Your task to perform on an android device: toggle notifications settings in the gmail app Image 0: 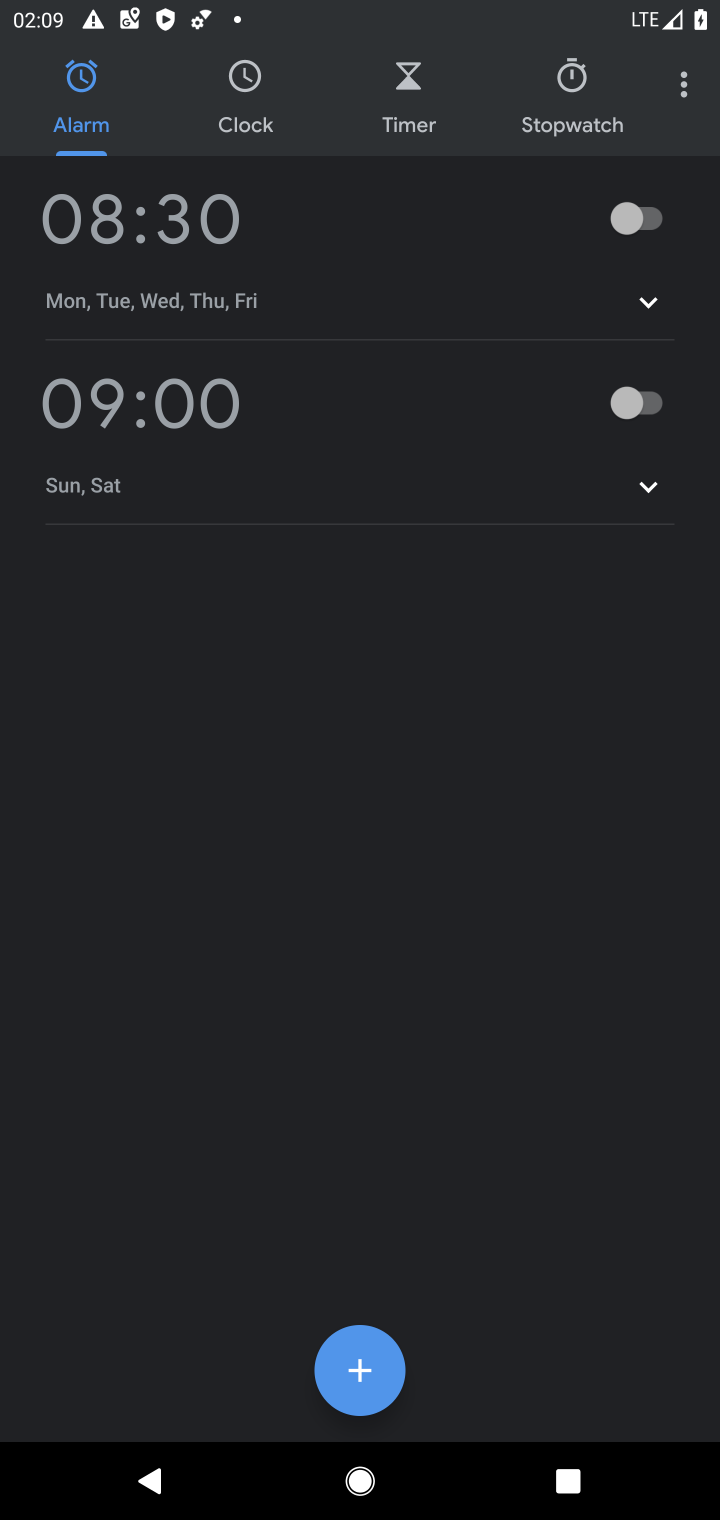
Step 0: press home button
Your task to perform on an android device: toggle notifications settings in the gmail app Image 1: 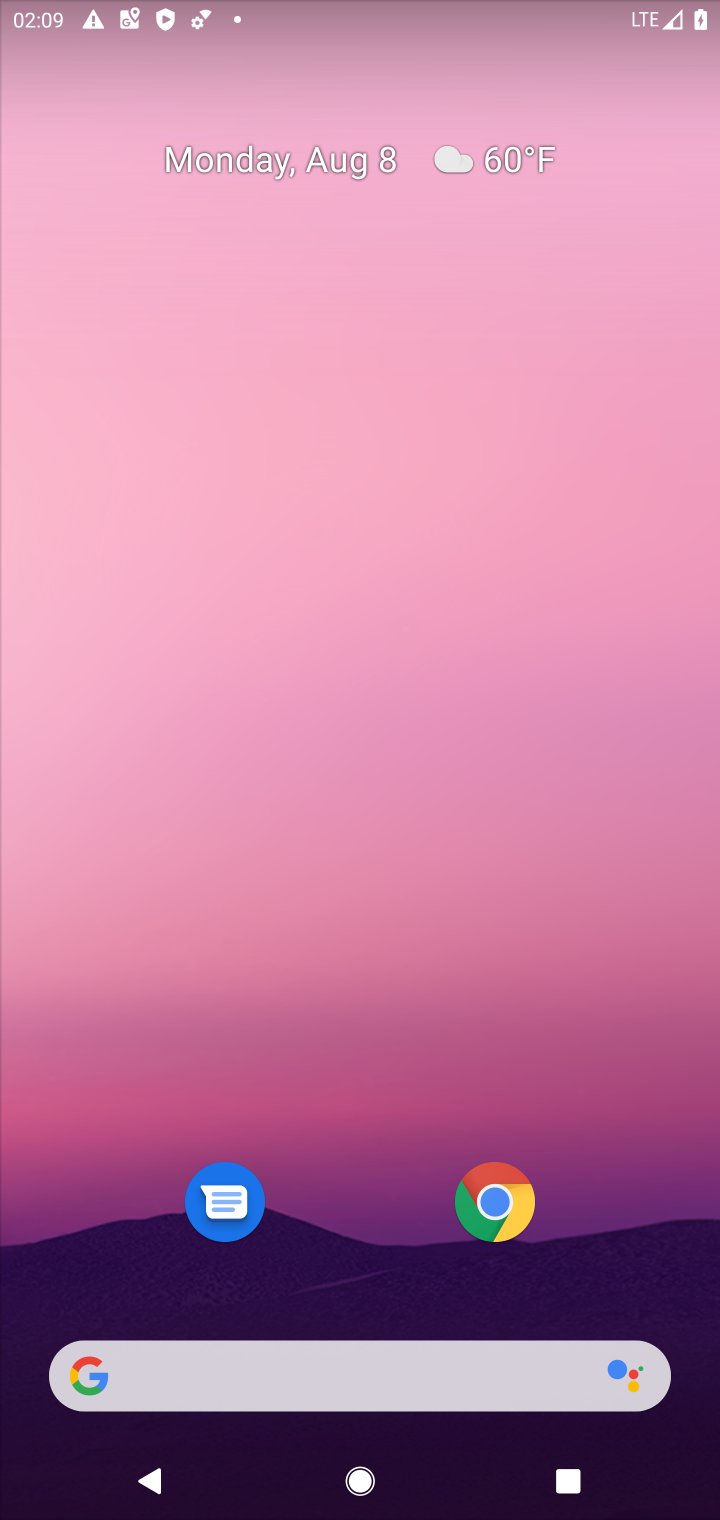
Step 1: drag from (314, 1212) to (538, 92)
Your task to perform on an android device: toggle notifications settings in the gmail app Image 2: 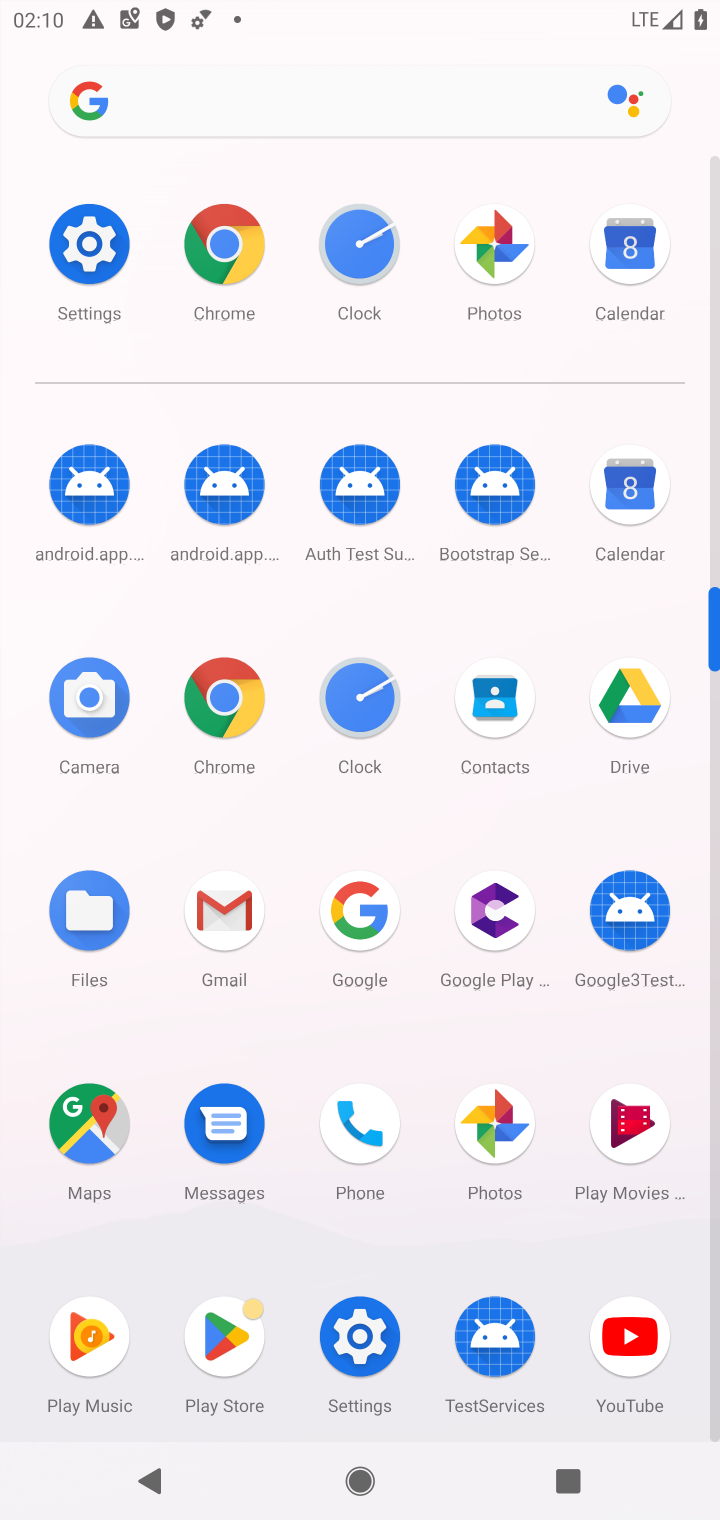
Step 2: click (223, 945)
Your task to perform on an android device: toggle notifications settings in the gmail app Image 3: 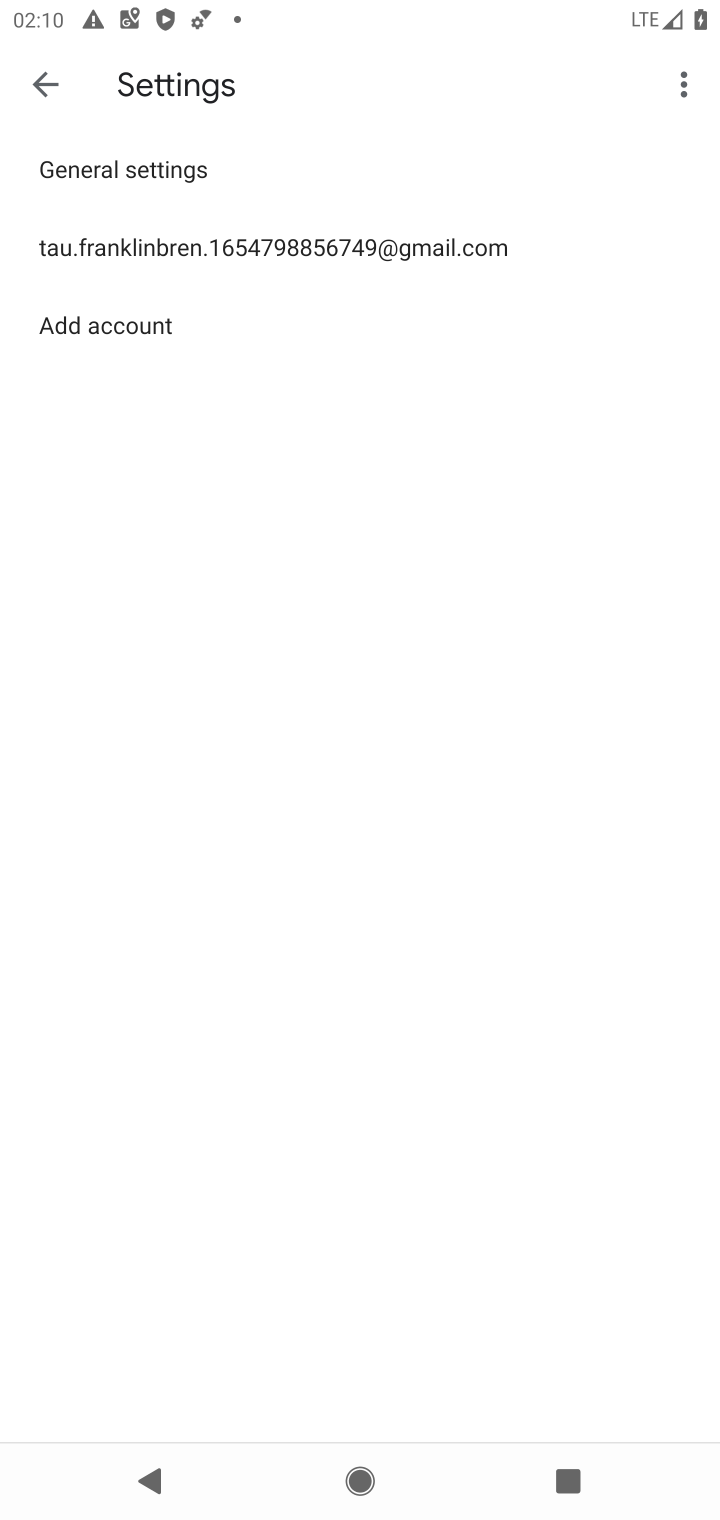
Step 3: click (166, 247)
Your task to perform on an android device: toggle notifications settings in the gmail app Image 4: 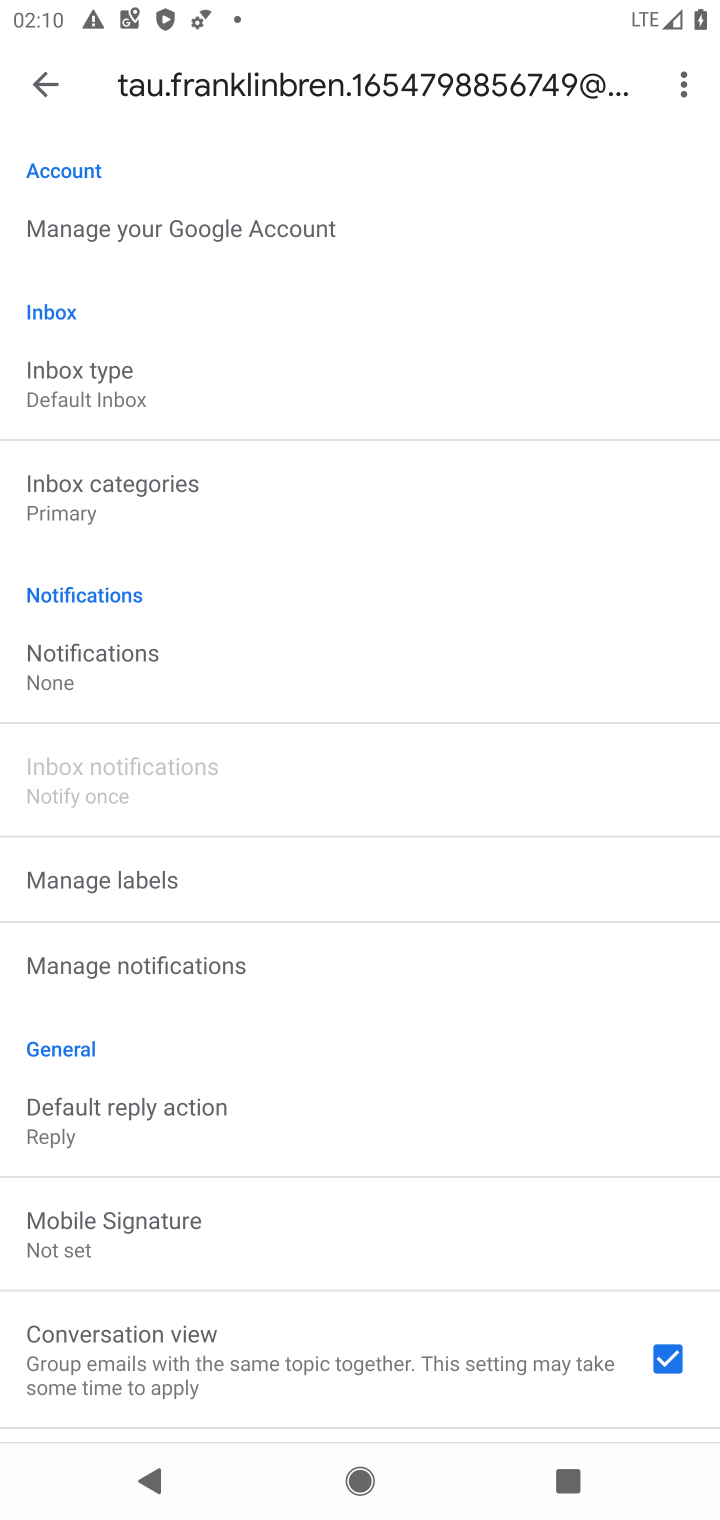
Step 4: click (67, 388)
Your task to perform on an android device: toggle notifications settings in the gmail app Image 5: 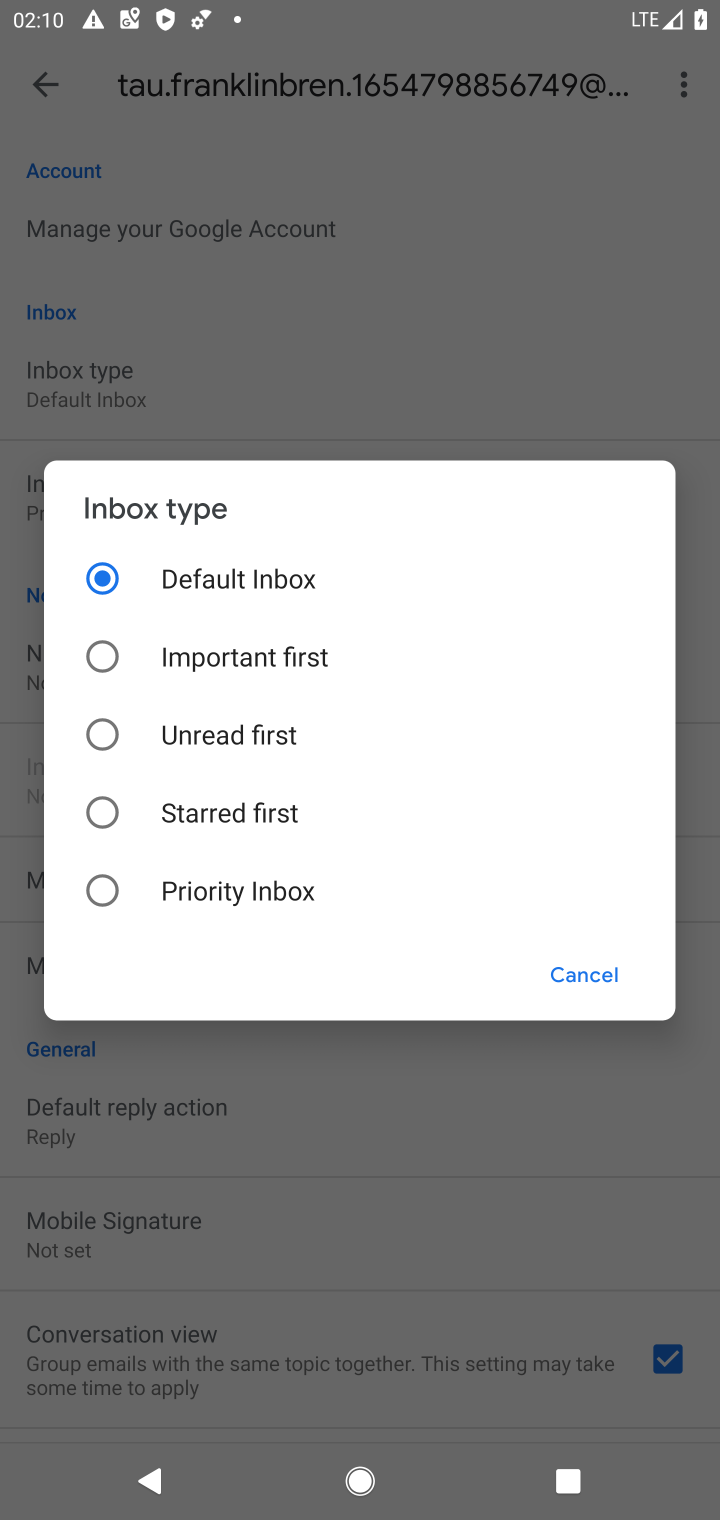
Step 5: click (108, 884)
Your task to perform on an android device: toggle notifications settings in the gmail app Image 6: 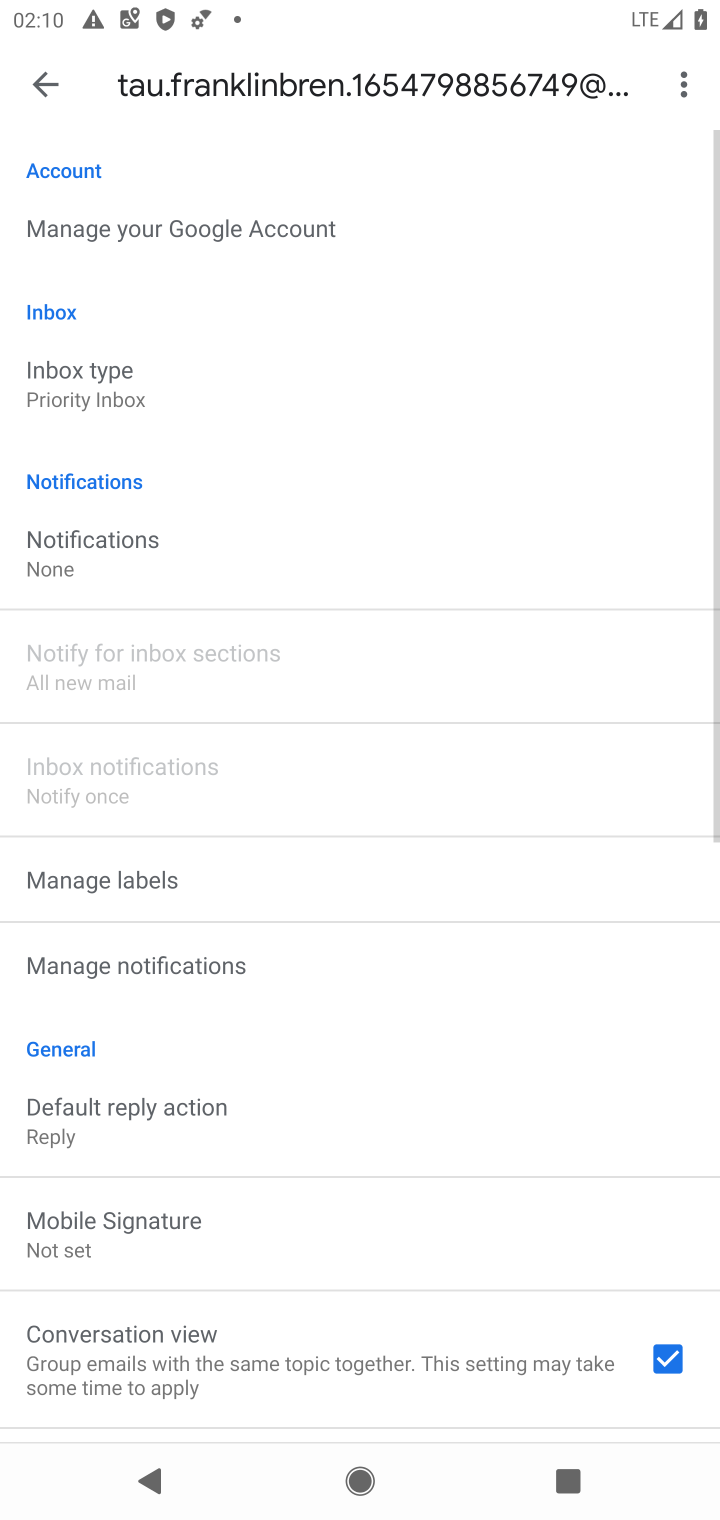
Step 6: task complete